Your task to perform on an android device: toggle notification dots Image 0: 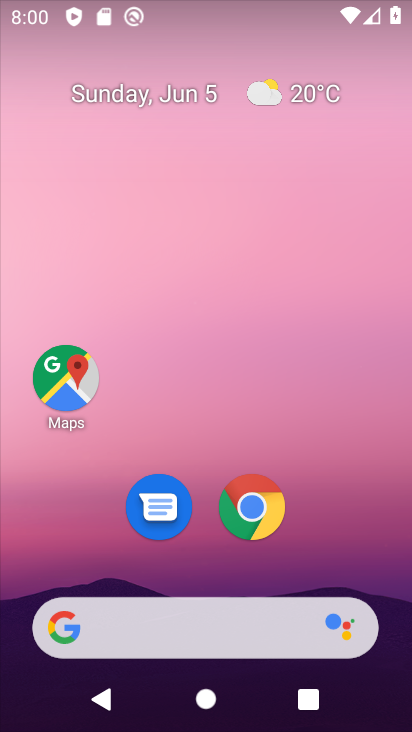
Step 0: drag from (204, 574) to (259, 5)
Your task to perform on an android device: toggle notification dots Image 1: 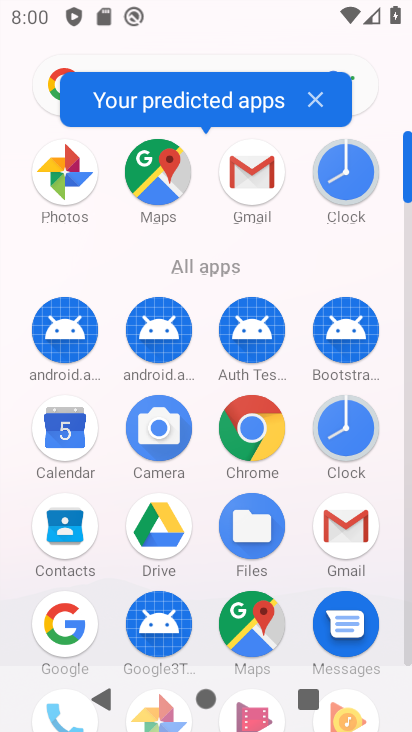
Step 1: drag from (214, 584) to (287, 74)
Your task to perform on an android device: toggle notification dots Image 2: 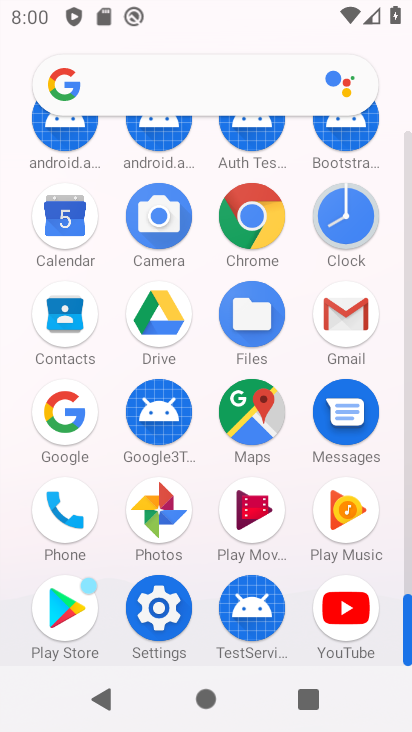
Step 2: click (167, 620)
Your task to perform on an android device: toggle notification dots Image 3: 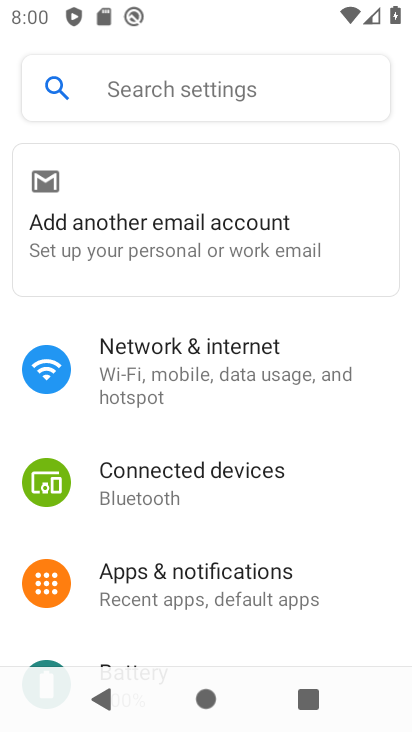
Step 3: click (206, 599)
Your task to perform on an android device: toggle notification dots Image 4: 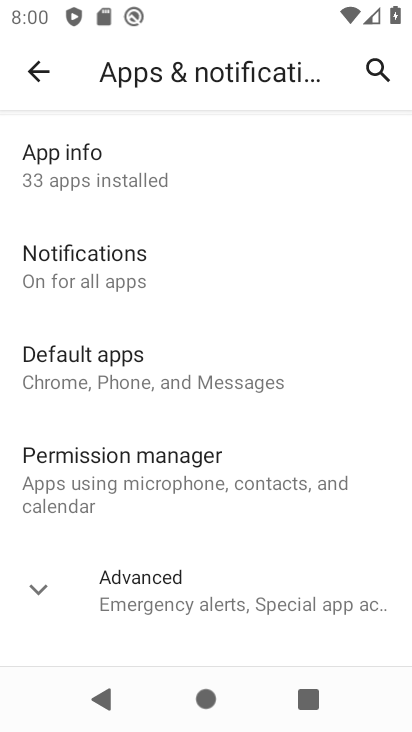
Step 4: click (107, 286)
Your task to perform on an android device: toggle notification dots Image 5: 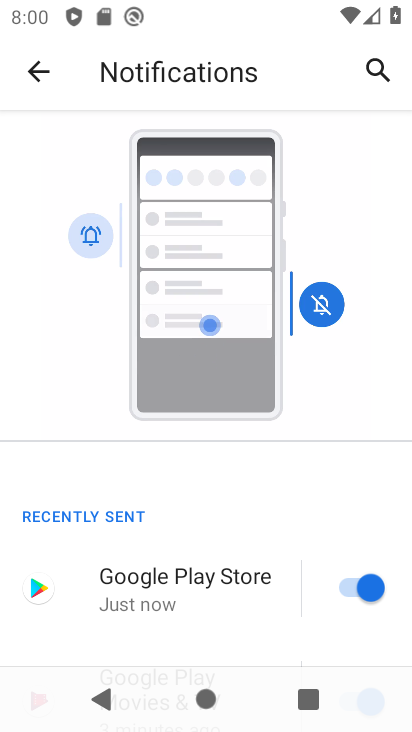
Step 5: drag from (205, 563) to (295, 66)
Your task to perform on an android device: toggle notification dots Image 6: 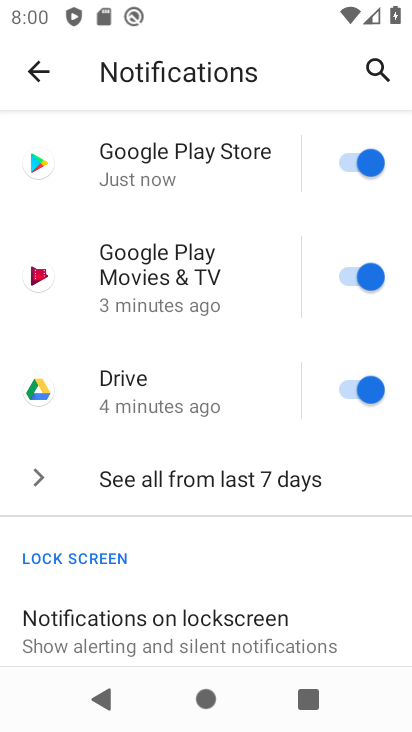
Step 6: drag from (228, 595) to (277, 143)
Your task to perform on an android device: toggle notification dots Image 7: 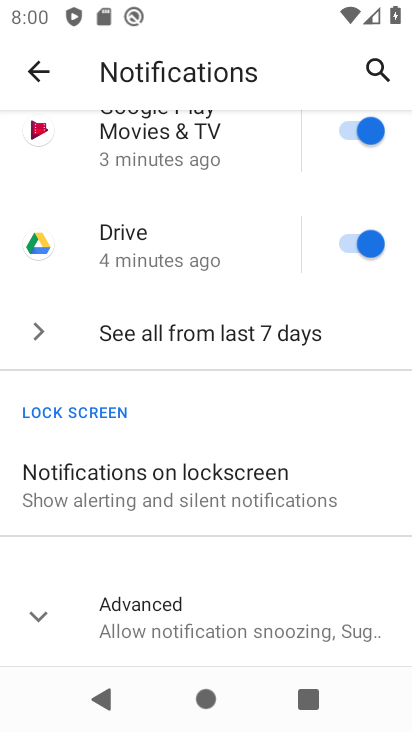
Step 7: click (178, 630)
Your task to perform on an android device: toggle notification dots Image 8: 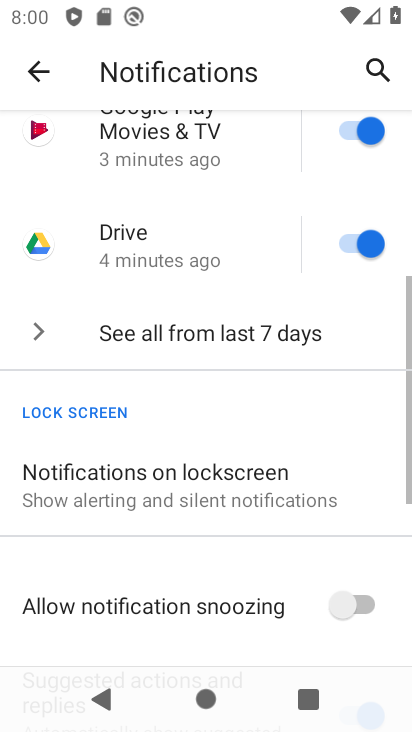
Step 8: drag from (210, 615) to (250, 304)
Your task to perform on an android device: toggle notification dots Image 9: 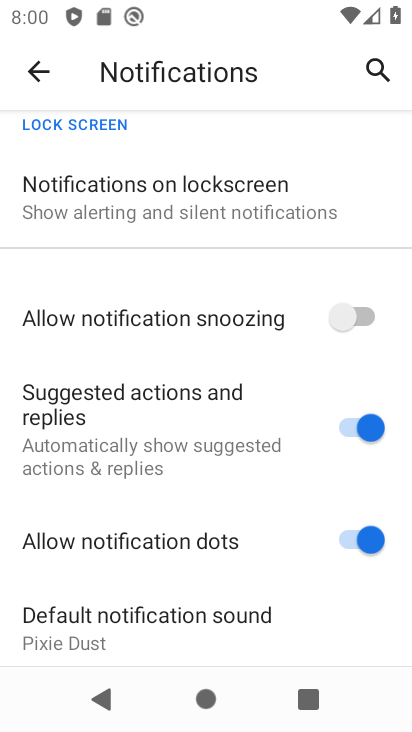
Step 9: click (334, 538)
Your task to perform on an android device: toggle notification dots Image 10: 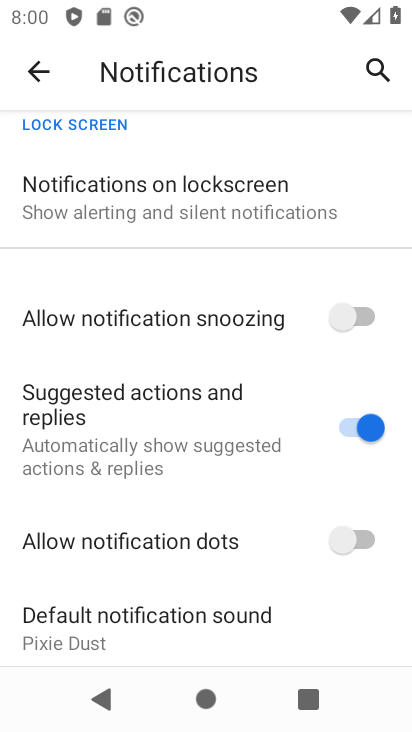
Step 10: task complete